Your task to perform on an android device: turn vacation reply on in the gmail app Image 0: 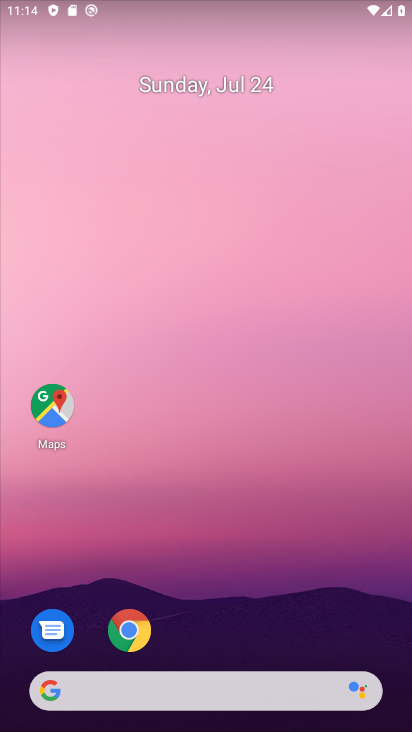
Step 0: drag from (239, 629) to (188, 0)
Your task to perform on an android device: turn vacation reply on in the gmail app Image 1: 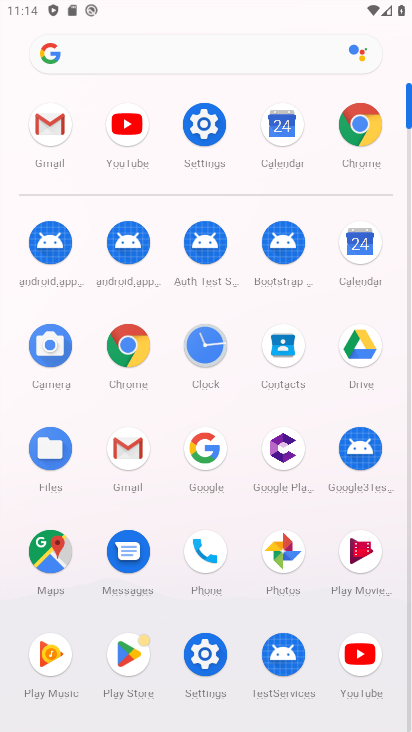
Step 1: click (53, 121)
Your task to perform on an android device: turn vacation reply on in the gmail app Image 2: 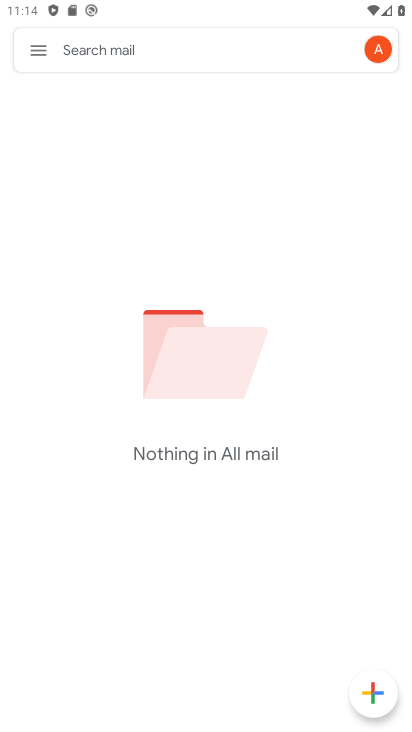
Step 2: click (29, 56)
Your task to perform on an android device: turn vacation reply on in the gmail app Image 3: 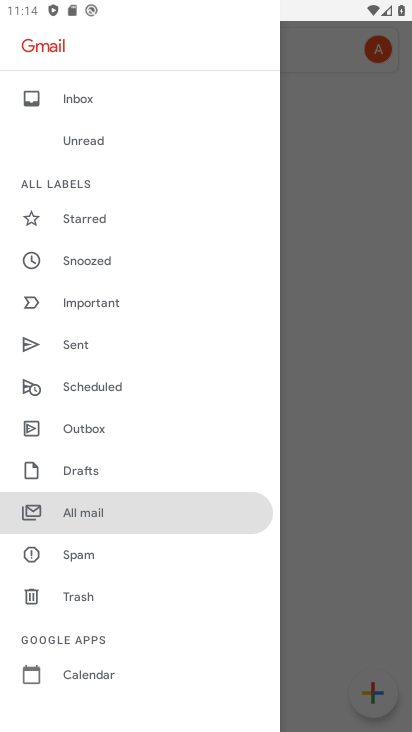
Step 3: drag from (91, 638) to (61, 172)
Your task to perform on an android device: turn vacation reply on in the gmail app Image 4: 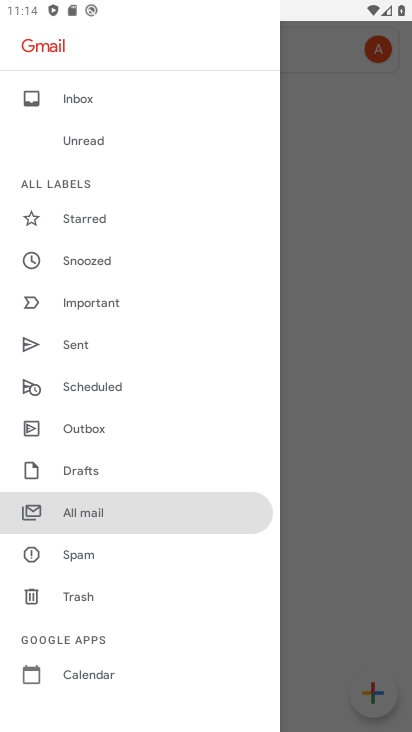
Step 4: drag from (112, 617) to (123, 290)
Your task to perform on an android device: turn vacation reply on in the gmail app Image 5: 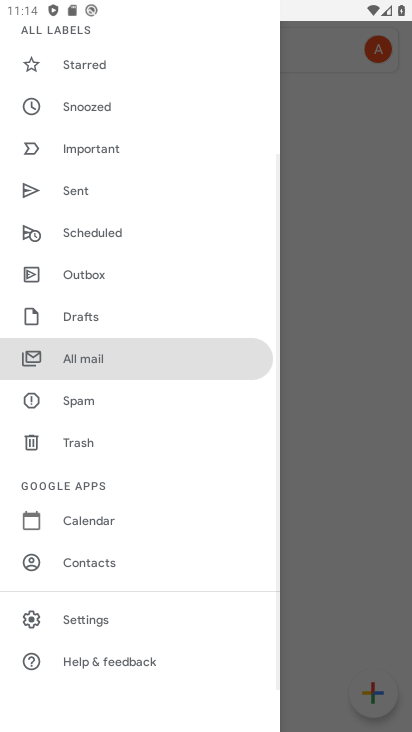
Step 5: click (102, 629)
Your task to perform on an android device: turn vacation reply on in the gmail app Image 6: 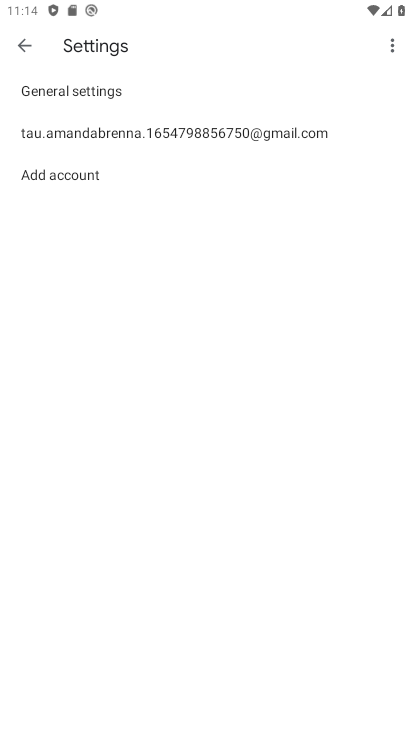
Step 6: click (219, 122)
Your task to perform on an android device: turn vacation reply on in the gmail app Image 7: 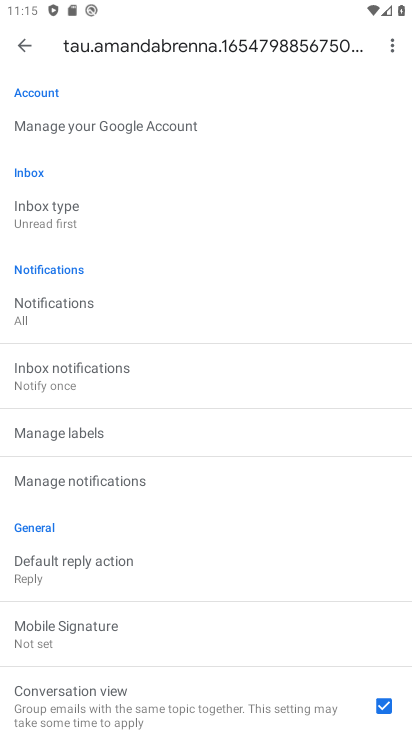
Step 7: drag from (148, 643) to (146, 358)
Your task to perform on an android device: turn vacation reply on in the gmail app Image 8: 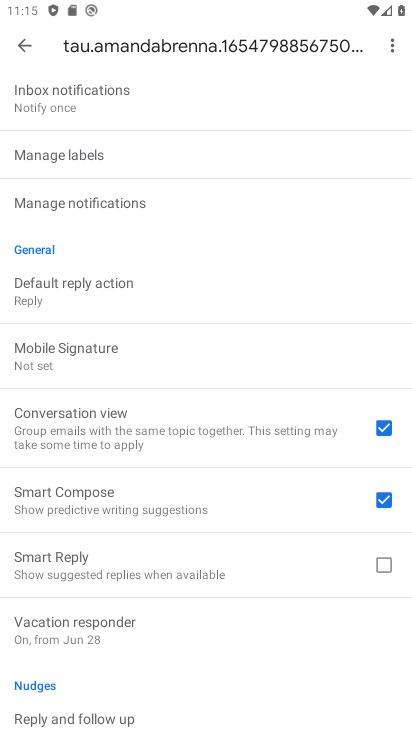
Step 8: click (101, 617)
Your task to perform on an android device: turn vacation reply on in the gmail app Image 9: 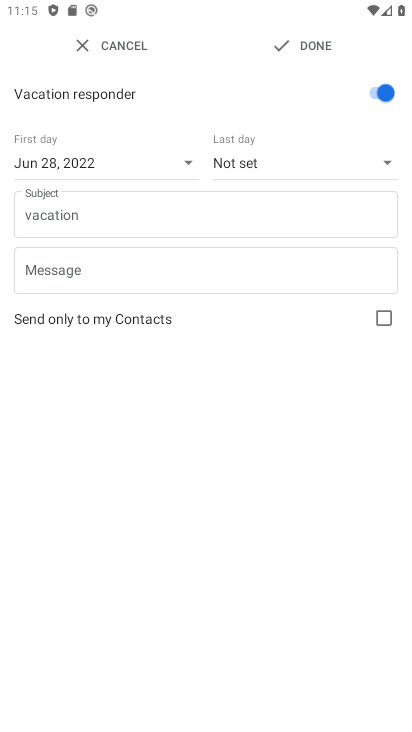
Step 9: click (291, 37)
Your task to perform on an android device: turn vacation reply on in the gmail app Image 10: 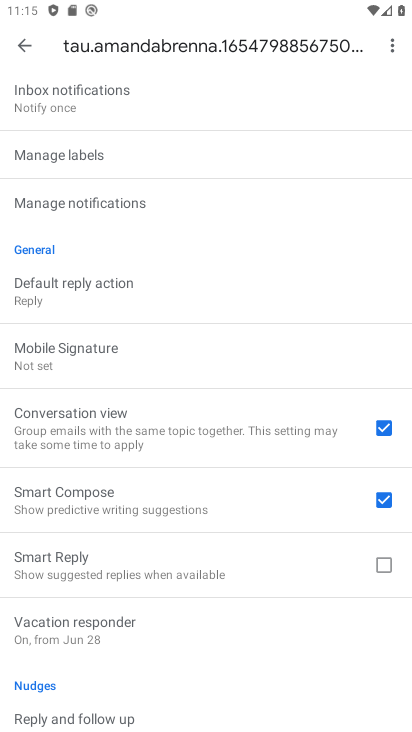
Step 10: task complete